Your task to perform on an android device: snooze an email in the gmail app Image 0: 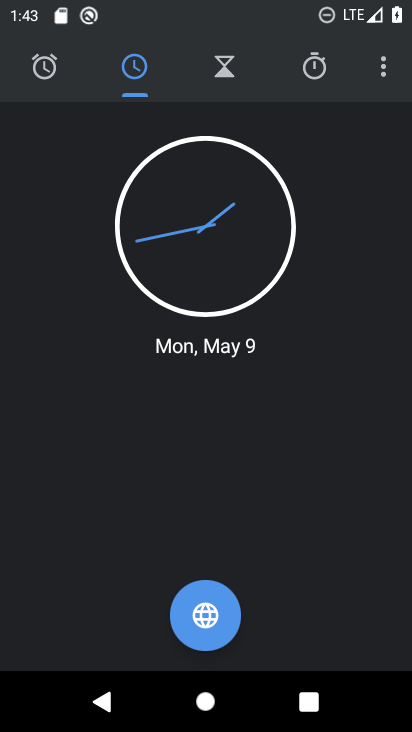
Step 0: press home button
Your task to perform on an android device: snooze an email in the gmail app Image 1: 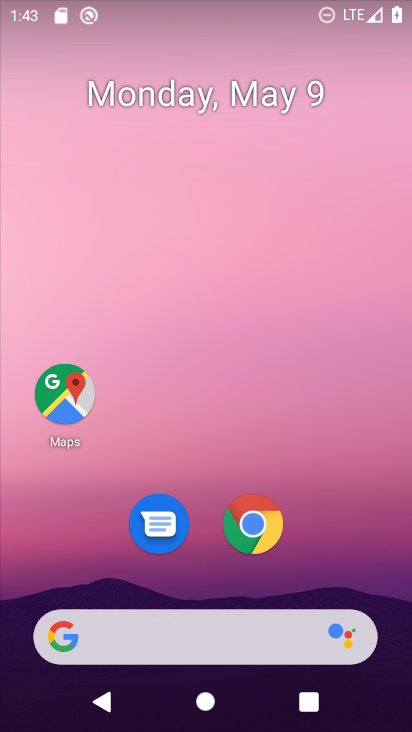
Step 1: drag from (310, 552) to (238, 0)
Your task to perform on an android device: snooze an email in the gmail app Image 2: 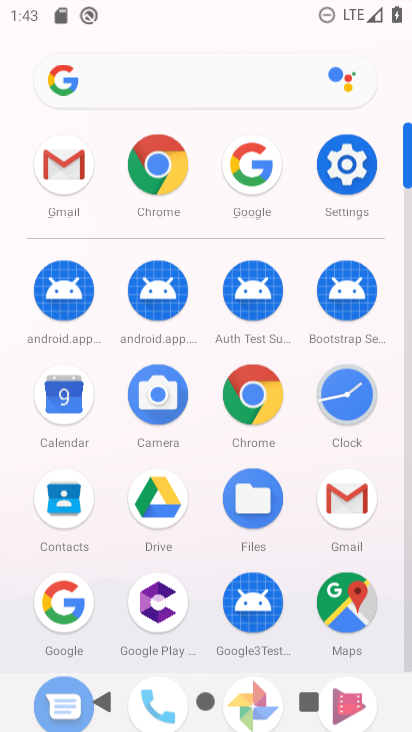
Step 2: click (81, 174)
Your task to perform on an android device: snooze an email in the gmail app Image 3: 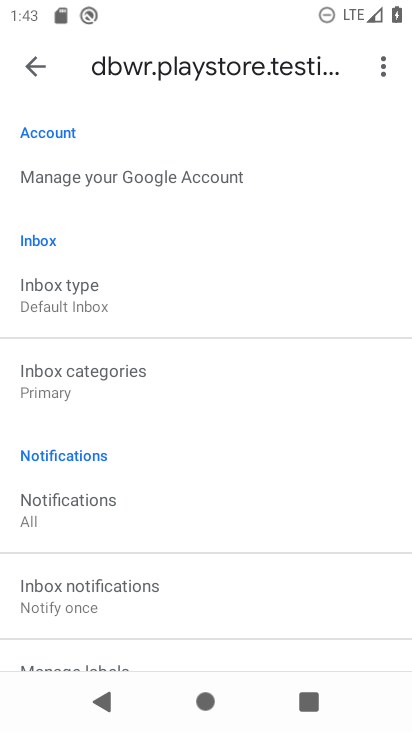
Step 3: click (35, 65)
Your task to perform on an android device: snooze an email in the gmail app Image 4: 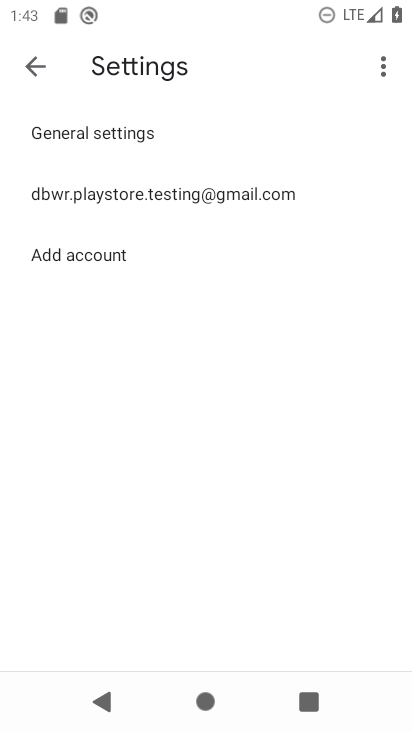
Step 4: click (35, 61)
Your task to perform on an android device: snooze an email in the gmail app Image 5: 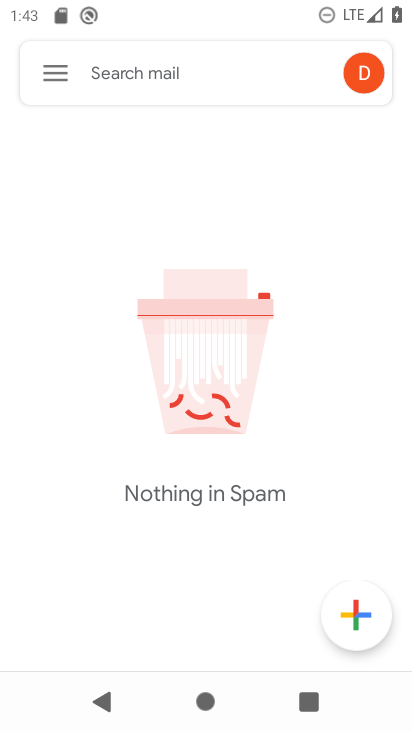
Step 5: click (62, 58)
Your task to perform on an android device: snooze an email in the gmail app Image 6: 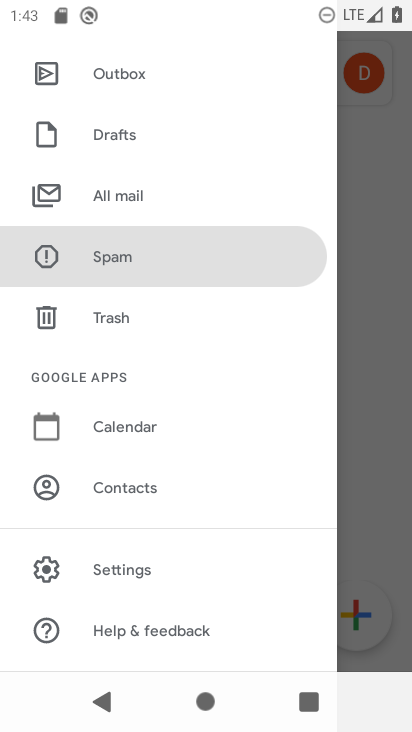
Step 6: click (139, 188)
Your task to perform on an android device: snooze an email in the gmail app Image 7: 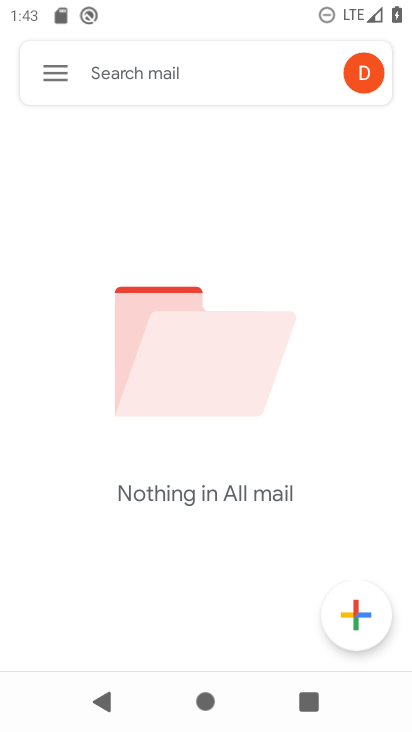
Step 7: task complete